Your task to perform on an android device: When is my next meeting? Image 0: 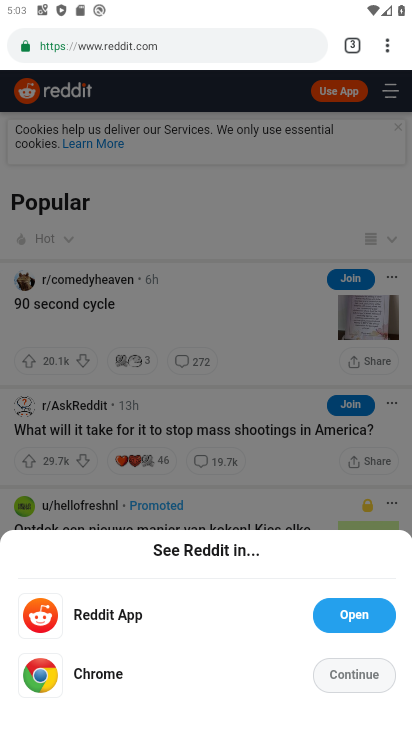
Step 0: press home button
Your task to perform on an android device: When is my next meeting? Image 1: 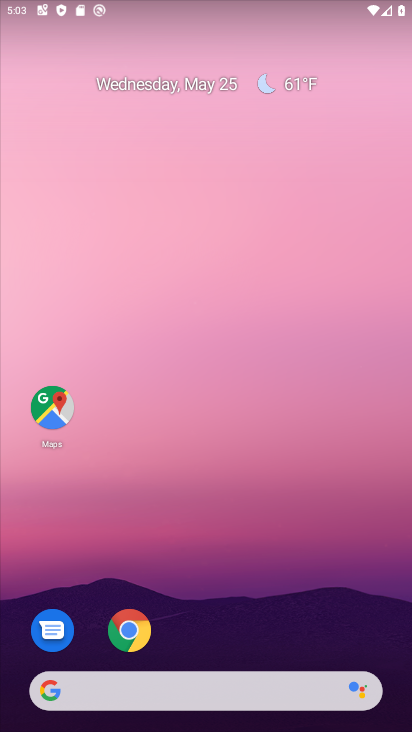
Step 1: drag from (213, 607) to (277, 48)
Your task to perform on an android device: When is my next meeting? Image 2: 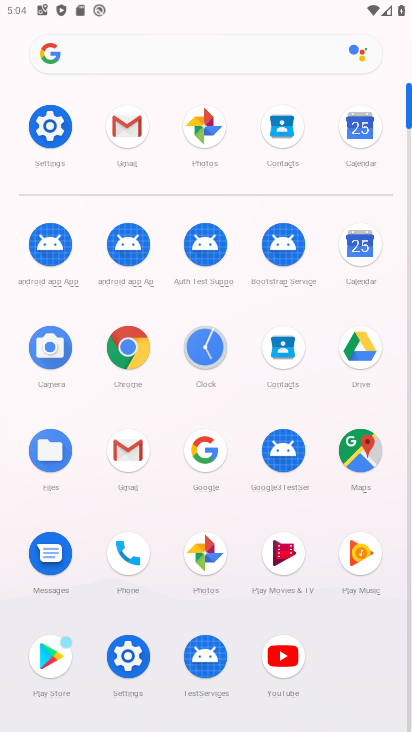
Step 2: click (348, 255)
Your task to perform on an android device: When is my next meeting? Image 3: 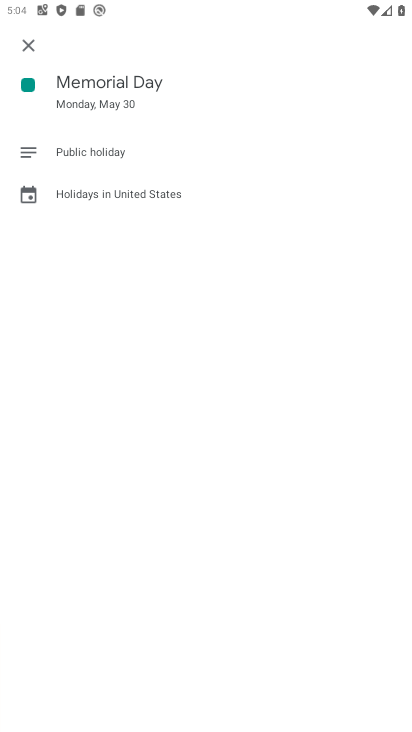
Step 3: click (23, 43)
Your task to perform on an android device: When is my next meeting? Image 4: 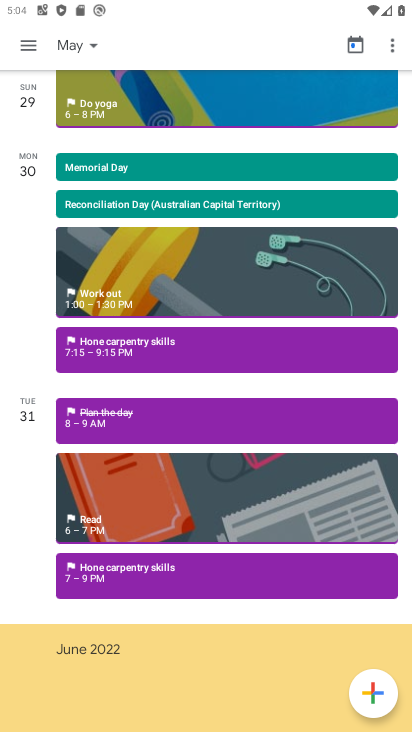
Step 4: task complete